Your task to perform on an android device: Open eBay Image 0: 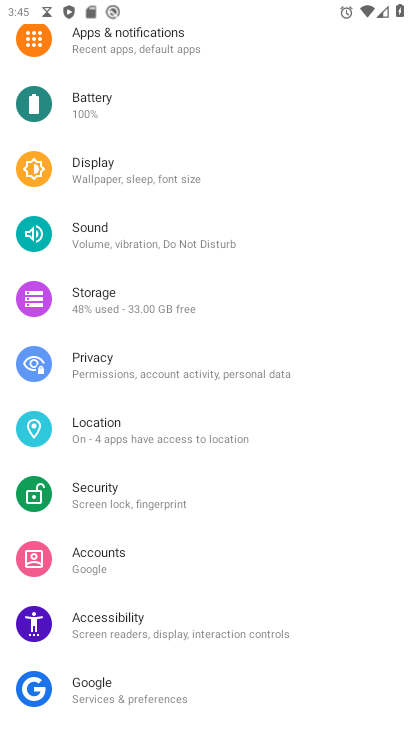
Step 0: press back button
Your task to perform on an android device: Open eBay Image 1: 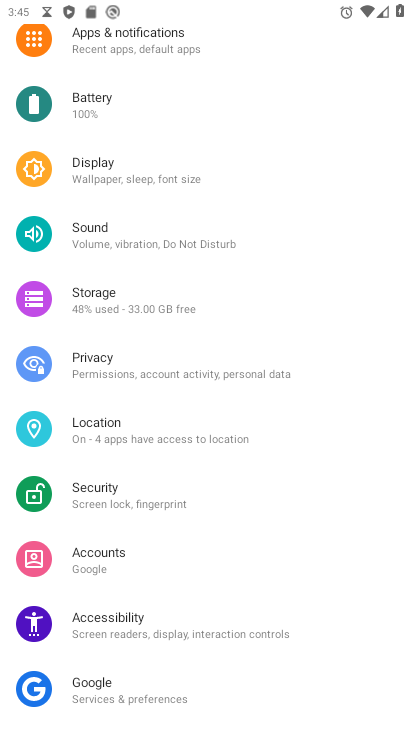
Step 1: press back button
Your task to perform on an android device: Open eBay Image 2: 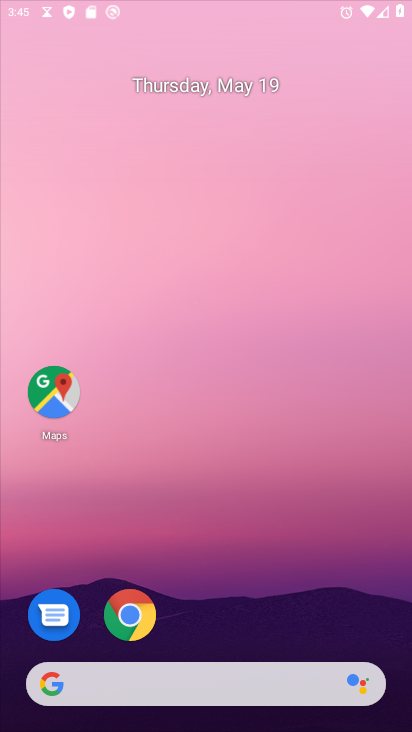
Step 2: press back button
Your task to perform on an android device: Open eBay Image 3: 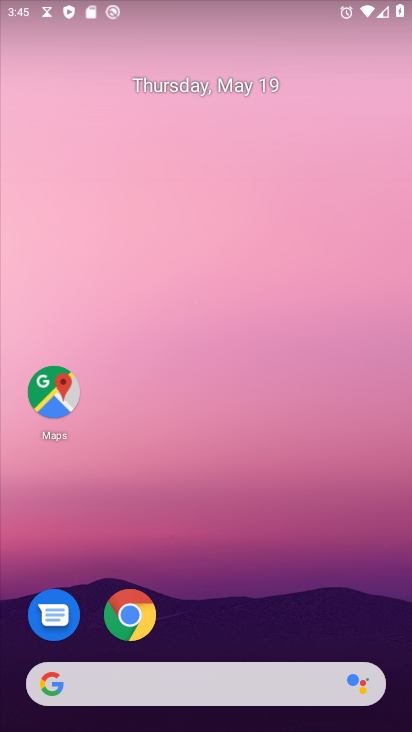
Step 3: drag from (271, 576) to (123, 103)
Your task to perform on an android device: Open eBay Image 4: 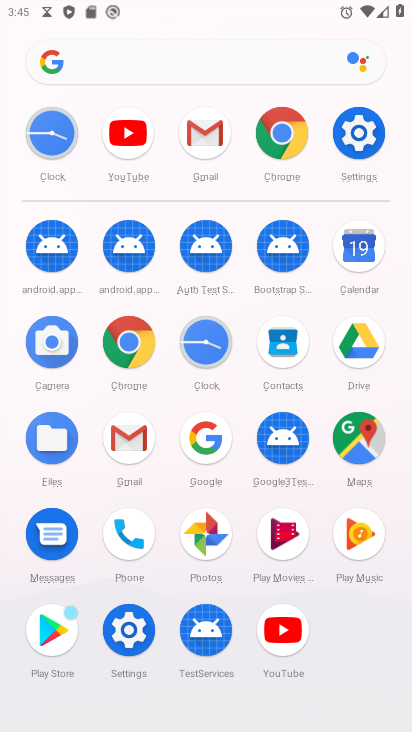
Step 4: click (274, 126)
Your task to perform on an android device: Open eBay Image 5: 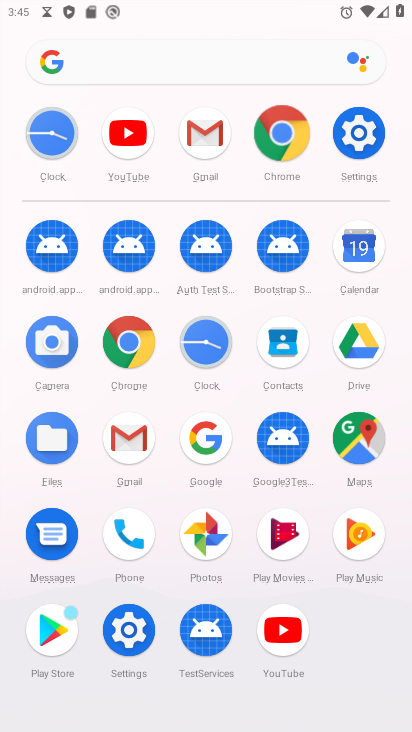
Step 5: click (274, 126)
Your task to perform on an android device: Open eBay Image 6: 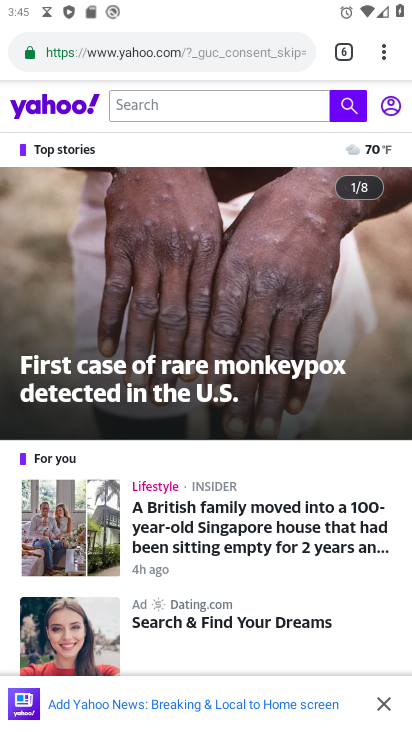
Step 6: drag from (380, 55) to (196, 143)
Your task to perform on an android device: Open eBay Image 7: 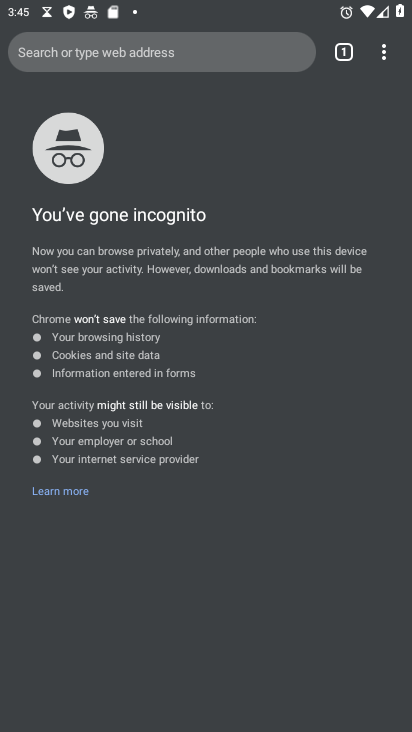
Step 7: click (379, 49)
Your task to perform on an android device: Open eBay Image 8: 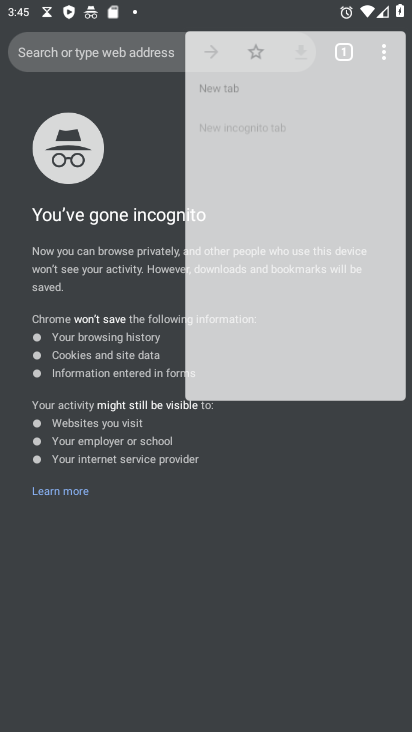
Step 8: click (379, 49)
Your task to perform on an android device: Open eBay Image 9: 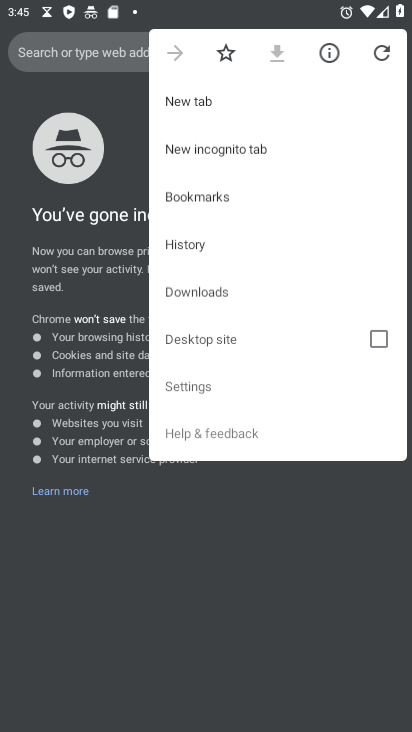
Step 9: click (379, 49)
Your task to perform on an android device: Open eBay Image 10: 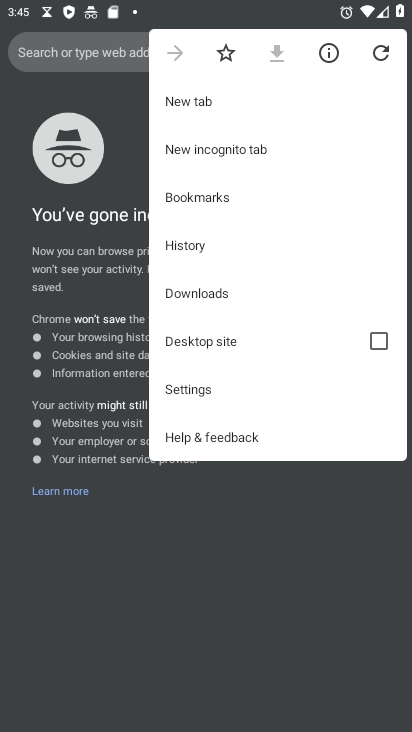
Step 10: click (162, 101)
Your task to perform on an android device: Open eBay Image 11: 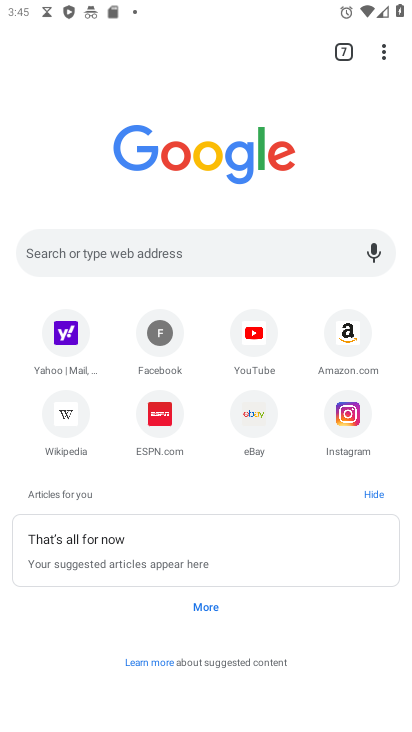
Step 11: click (180, 103)
Your task to perform on an android device: Open eBay Image 12: 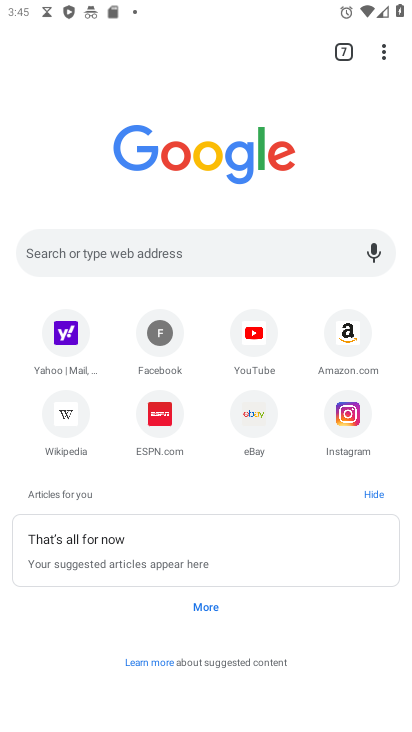
Step 12: click (242, 412)
Your task to perform on an android device: Open eBay Image 13: 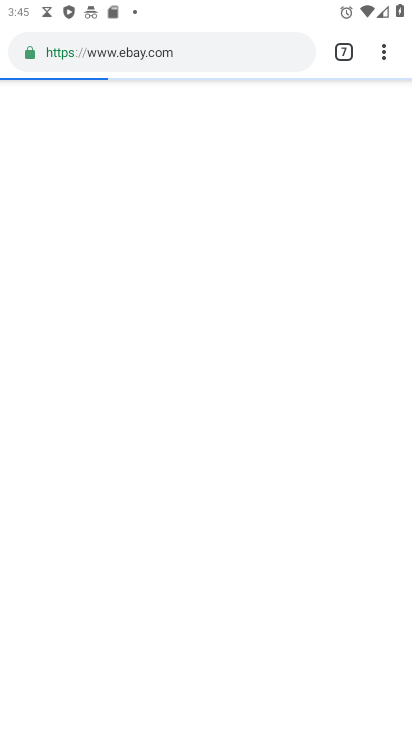
Step 13: click (243, 412)
Your task to perform on an android device: Open eBay Image 14: 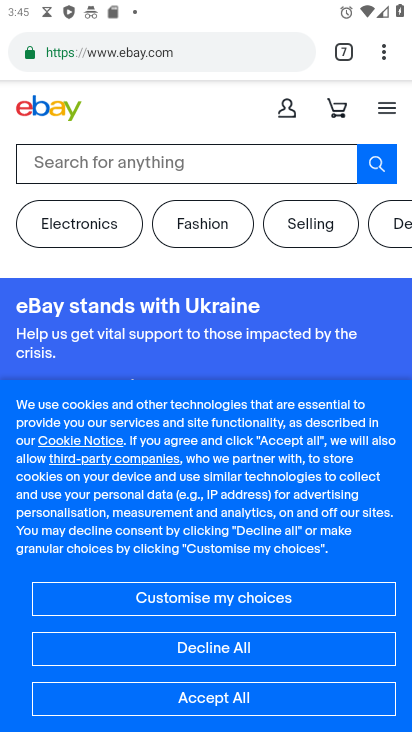
Step 14: task complete